Your task to perform on an android device: check data usage Image 0: 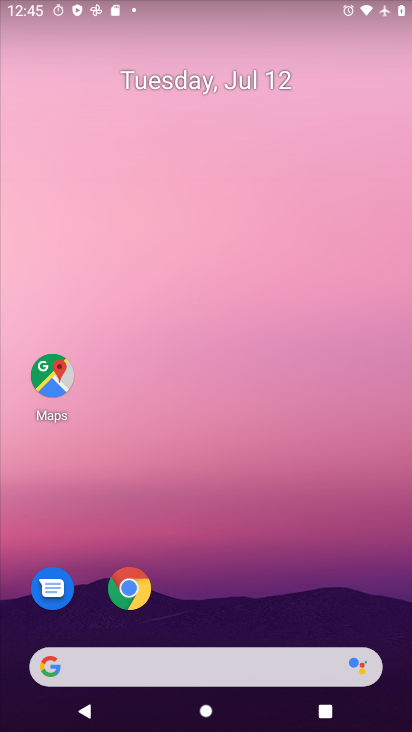
Step 0: press home button
Your task to perform on an android device: check data usage Image 1: 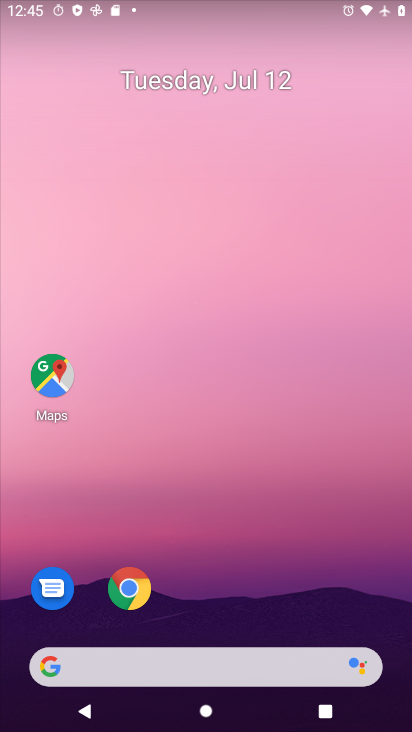
Step 1: drag from (210, 668) to (359, 25)
Your task to perform on an android device: check data usage Image 2: 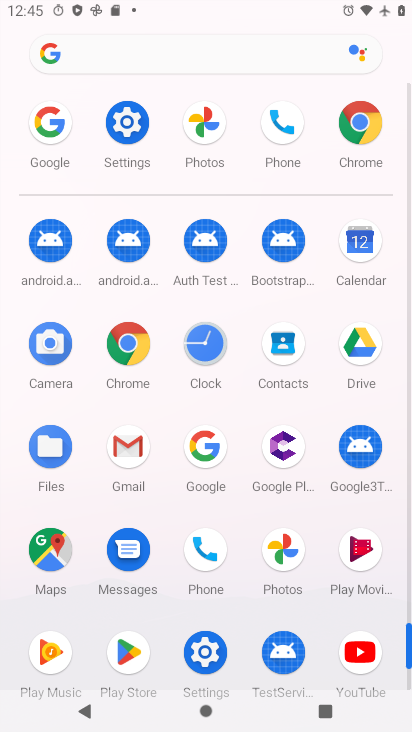
Step 2: click (121, 120)
Your task to perform on an android device: check data usage Image 3: 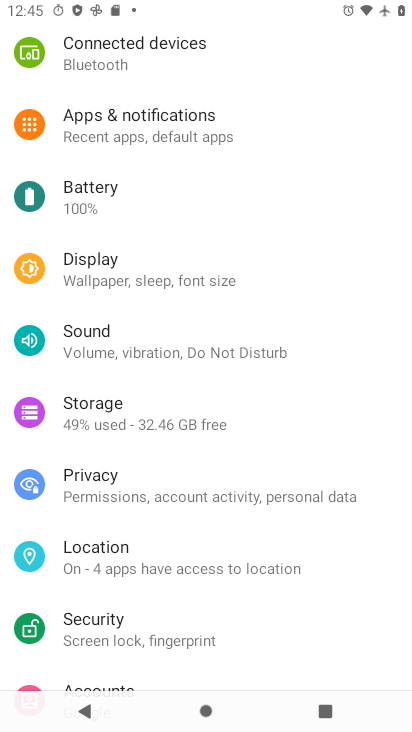
Step 3: drag from (319, 105) to (201, 533)
Your task to perform on an android device: check data usage Image 4: 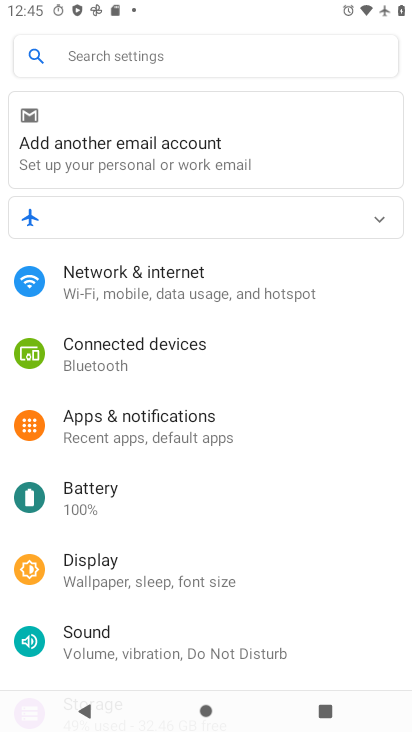
Step 4: click (182, 283)
Your task to perform on an android device: check data usage Image 5: 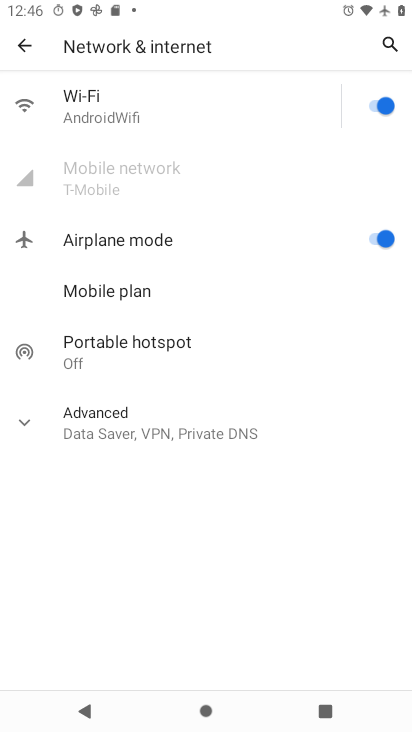
Step 5: click (106, 96)
Your task to perform on an android device: check data usage Image 6: 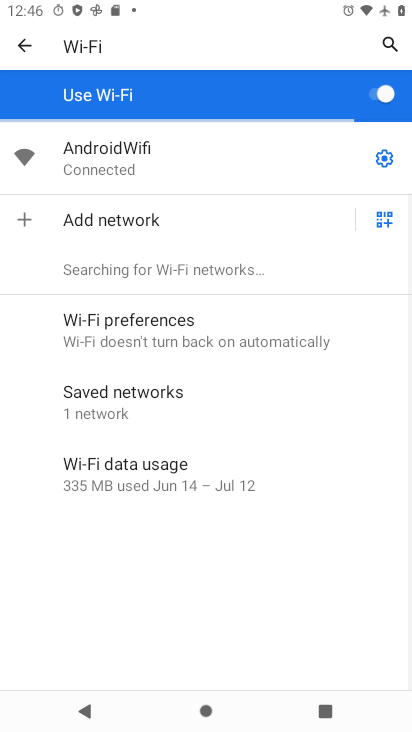
Step 6: click (139, 464)
Your task to perform on an android device: check data usage Image 7: 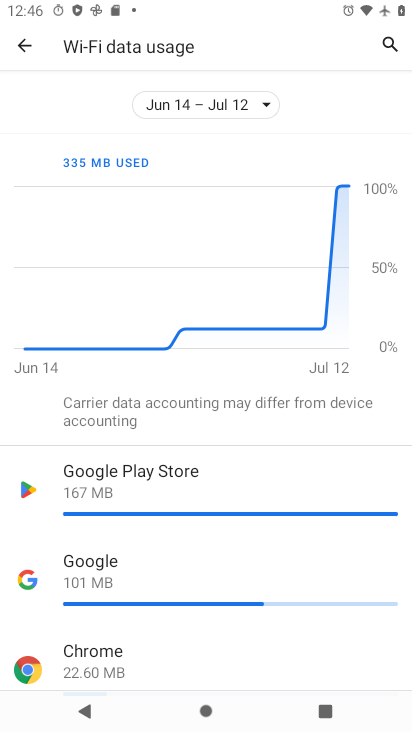
Step 7: task complete